Your task to perform on an android device: Open calendar and show me the first week of next month Image 0: 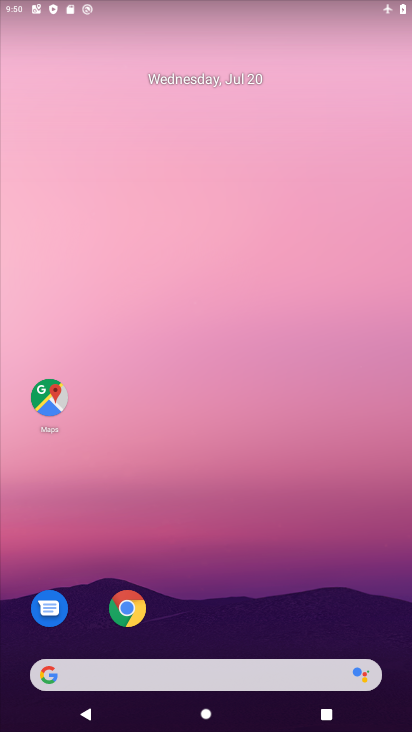
Step 0: drag from (298, 566) to (288, 275)
Your task to perform on an android device: Open calendar and show me the first week of next month Image 1: 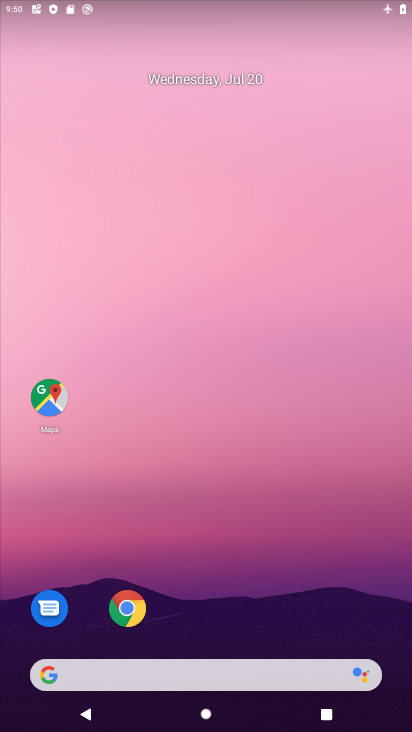
Step 1: drag from (328, 713) to (297, 120)
Your task to perform on an android device: Open calendar and show me the first week of next month Image 2: 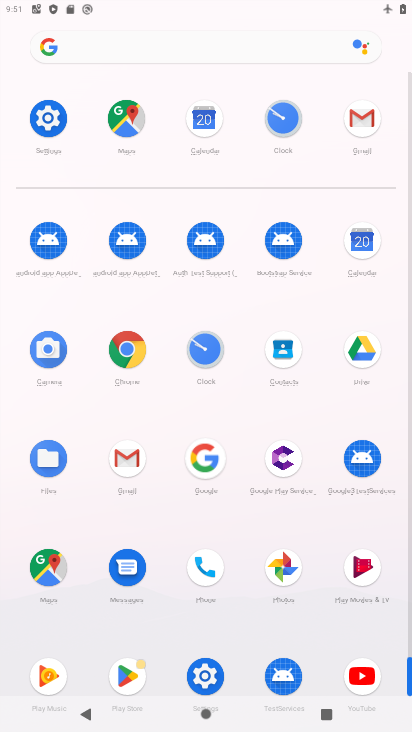
Step 2: click (356, 240)
Your task to perform on an android device: Open calendar and show me the first week of next month Image 3: 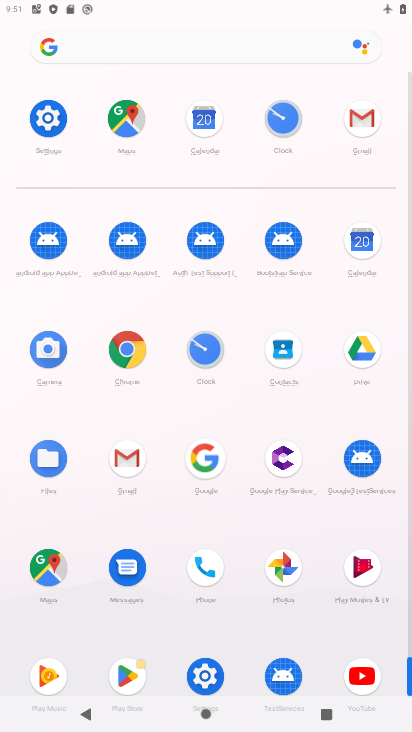
Step 3: click (356, 240)
Your task to perform on an android device: Open calendar and show me the first week of next month Image 4: 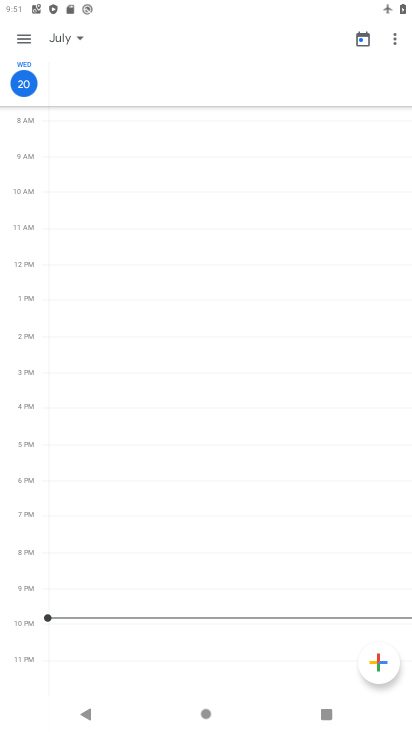
Step 4: click (54, 28)
Your task to perform on an android device: Open calendar and show me the first week of next month Image 5: 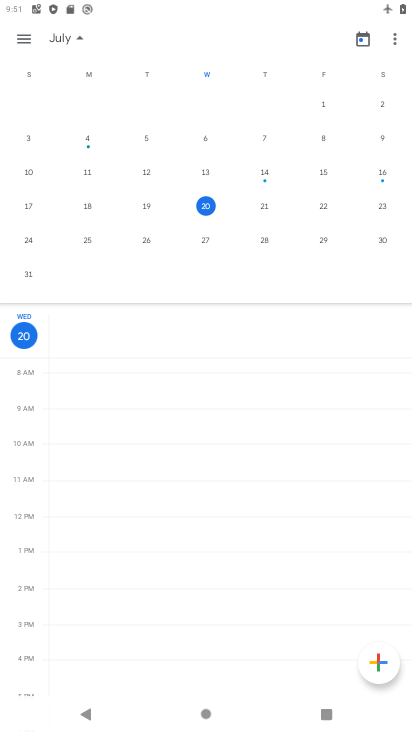
Step 5: drag from (267, 264) to (46, 208)
Your task to perform on an android device: Open calendar and show me the first week of next month Image 6: 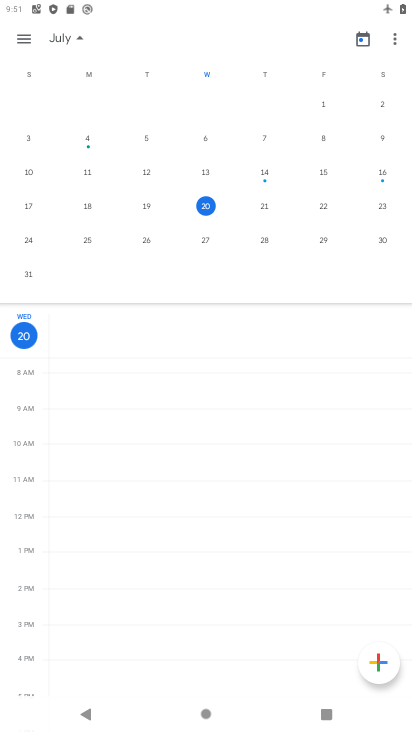
Step 6: drag from (344, 136) to (53, 254)
Your task to perform on an android device: Open calendar and show me the first week of next month Image 7: 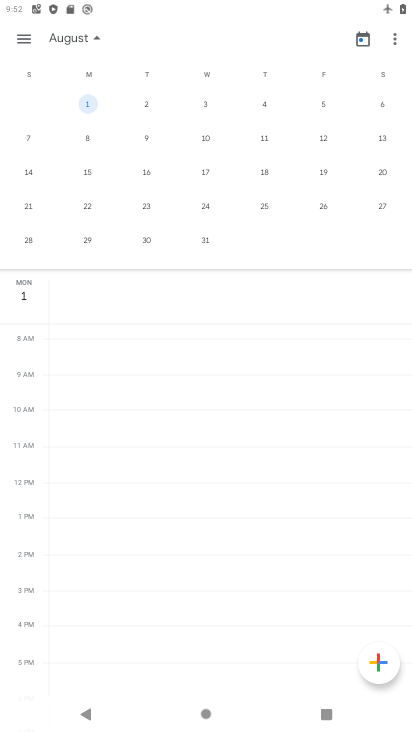
Step 7: click (91, 102)
Your task to perform on an android device: Open calendar and show me the first week of next month Image 8: 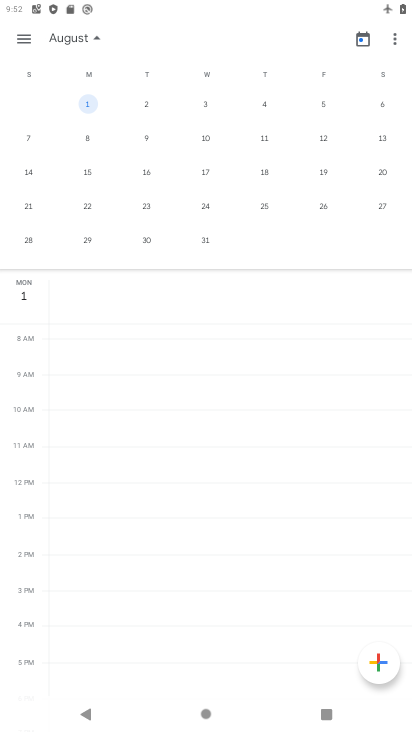
Step 8: task complete